Your task to perform on an android device: allow notifications from all sites in the chrome app Image 0: 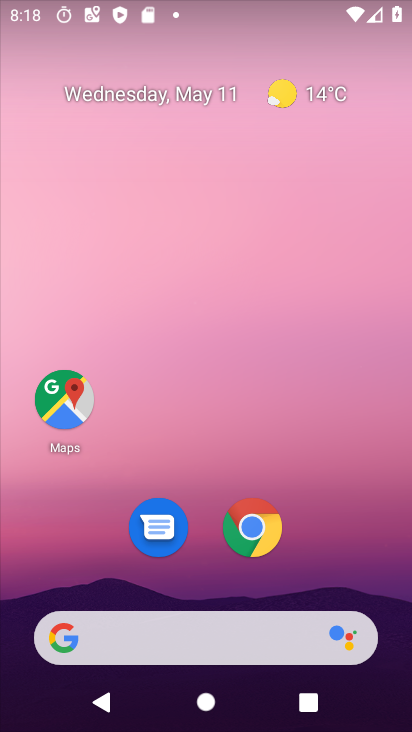
Step 0: drag from (275, 545) to (391, 0)
Your task to perform on an android device: allow notifications from all sites in the chrome app Image 1: 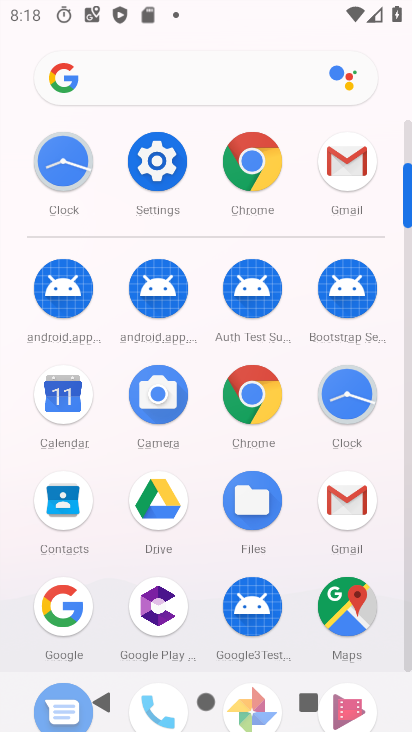
Step 1: drag from (226, 508) to (226, 228)
Your task to perform on an android device: allow notifications from all sites in the chrome app Image 2: 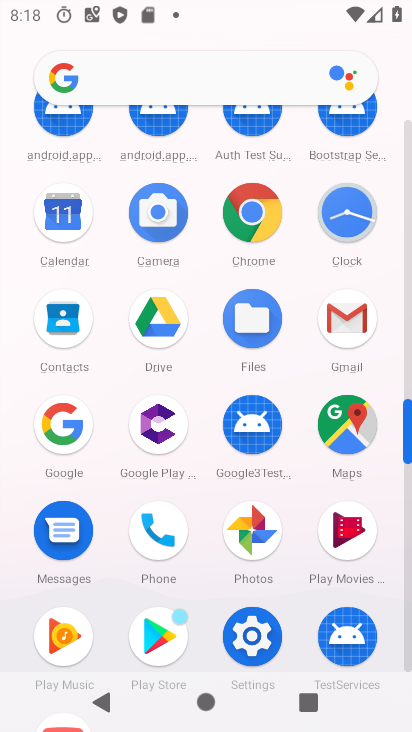
Step 2: click (251, 230)
Your task to perform on an android device: allow notifications from all sites in the chrome app Image 3: 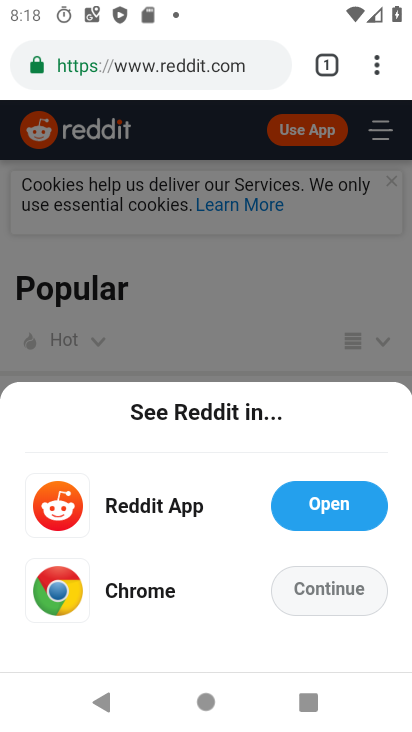
Step 3: click (369, 73)
Your task to perform on an android device: allow notifications from all sites in the chrome app Image 4: 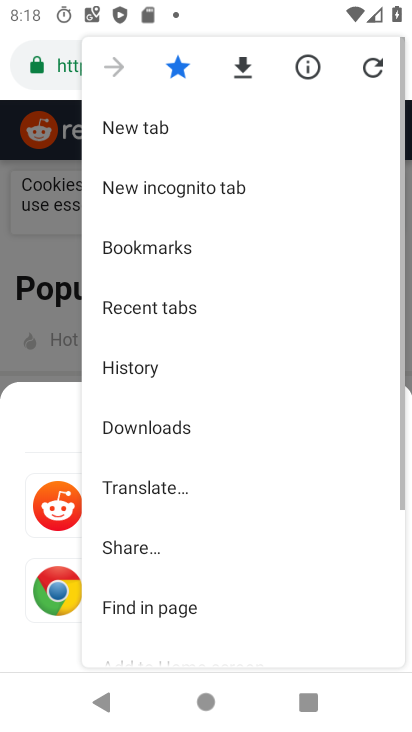
Step 4: drag from (206, 532) to (223, 333)
Your task to perform on an android device: allow notifications from all sites in the chrome app Image 5: 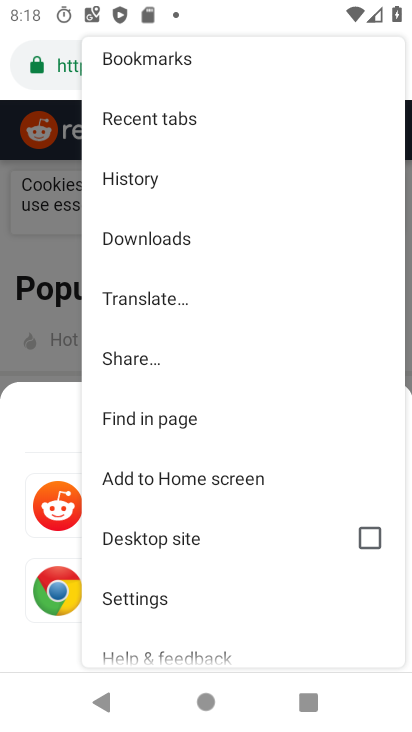
Step 5: click (171, 605)
Your task to perform on an android device: allow notifications from all sites in the chrome app Image 6: 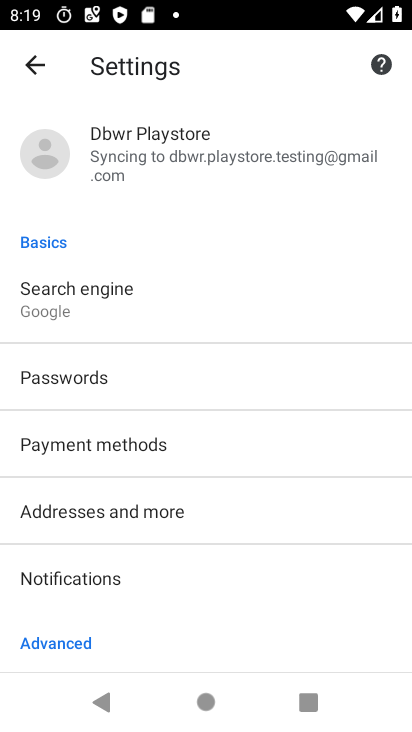
Step 6: click (148, 581)
Your task to perform on an android device: allow notifications from all sites in the chrome app Image 7: 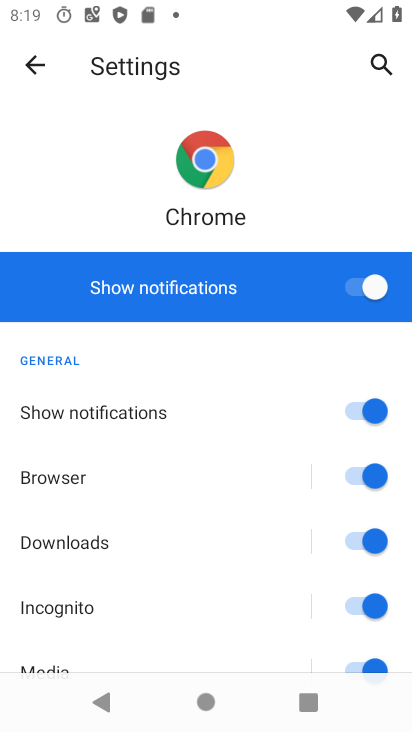
Step 7: task complete